Your task to perform on an android device: open app "Lyft - Rideshare, Bikes, Scooters & Transit" (install if not already installed) Image 0: 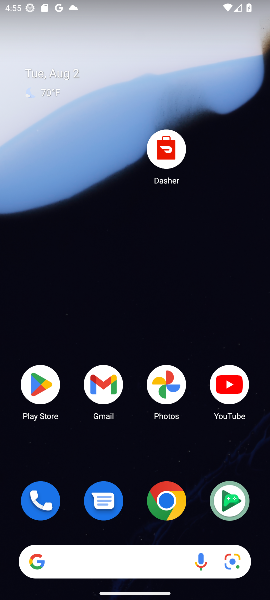
Step 0: click (38, 392)
Your task to perform on an android device: open app "Lyft - Rideshare, Bikes, Scooters & Transit" (install if not already installed) Image 1: 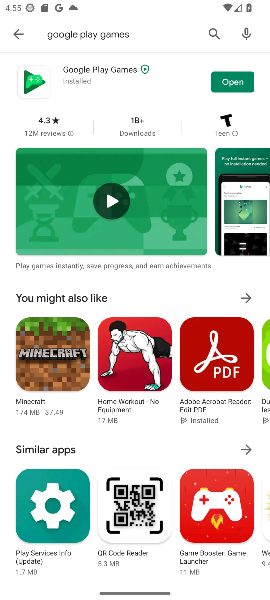
Step 1: click (209, 26)
Your task to perform on an android device: open app "Lyft - Rideshare, Bikes, Scooters & Transit" (install if not already installed) Image 2: 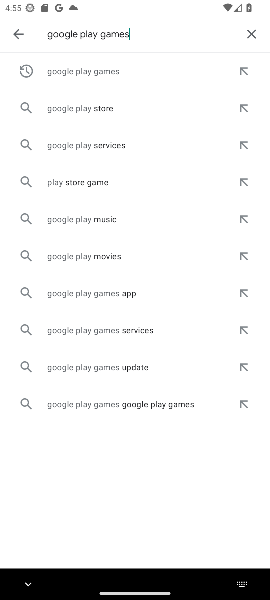
Step 2: click (251, 34)
Your task to perform on an android device: open app "Lyft - Rideshare, Bikes, Scooters & Transit" (install if not already installed) Image 3: 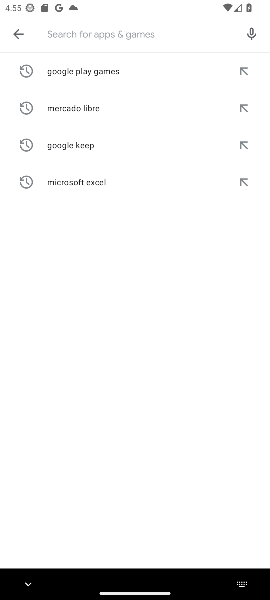
Step 3: type "Lyft - Rideshare, Bikes, Scooters & Transit"
Your task to perform on an android device: open app "Lyft - Rideshare, Bikes, Scooters & Transit" (install if not already installed) Image 4: 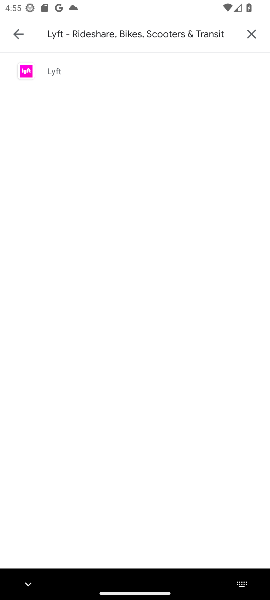
Step 4: click (60, 72)
Your task to perform on an android device: open app "Lyft - Rideshare, Bikes, Scooters & Transit" (install if not already installed) Image 5: 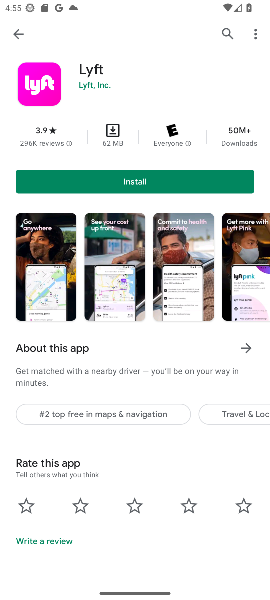
Step 5: click (139, 185)
Your task to perform on an android device: open app "Lyft - Rideshare, Bikes, Scooters & Transit" (install if not already installed) Image 6: 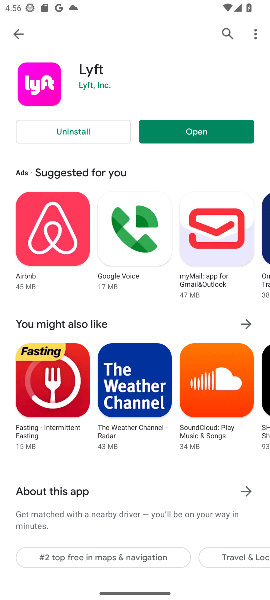
Step 6: click (177, 127)
Your task to perform on an android device: open app "Lyft - Rideshare, Bikes, Scooters & Transit" (install if not already installed) Image 7: 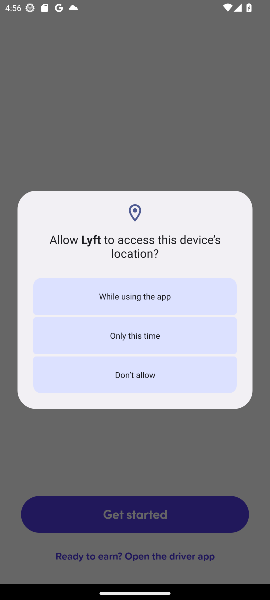
Step 7: task complete